Your task to perform on an android device: Search for pizza restaurants on Maps Image 0: 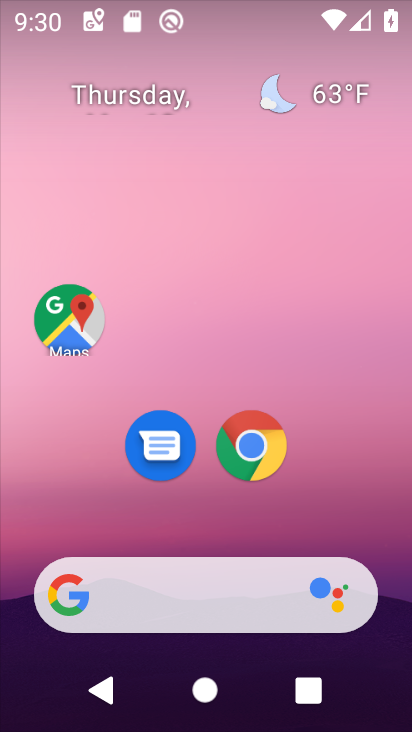
Step 0: drag from (212, 473) to (215, 157)
Your task to perform on an android device: Search for pizza restaurants on Maps Image 1: 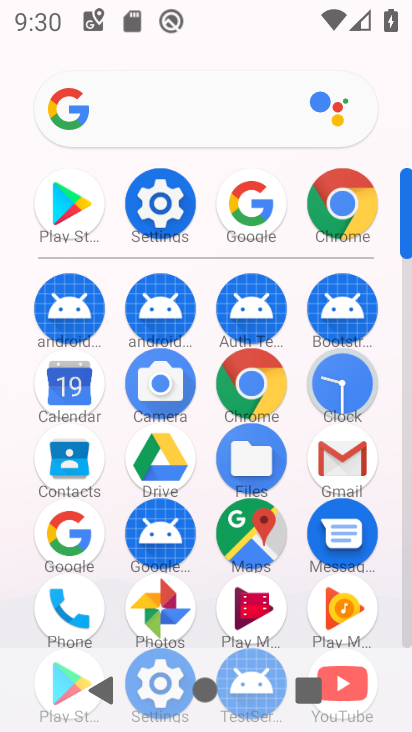
Step 1: click (266, 535)
Your task to perform on an android device: Search for pizza restaurants on Maps Image 2: 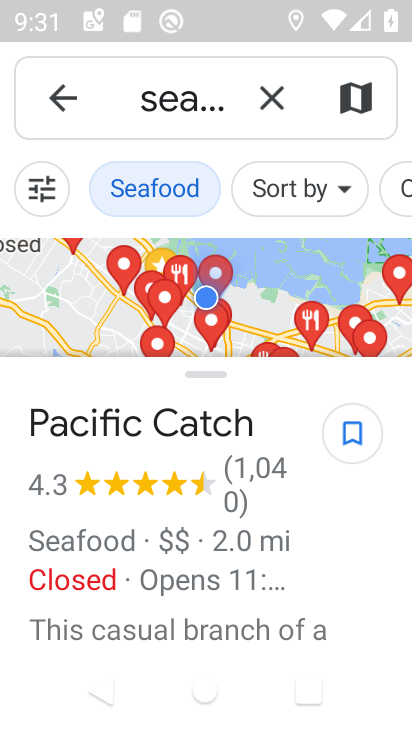
Step 2: click (255, 101)
Your task to perform on an android device: Search for pizza restaurants on Maps Image 3: 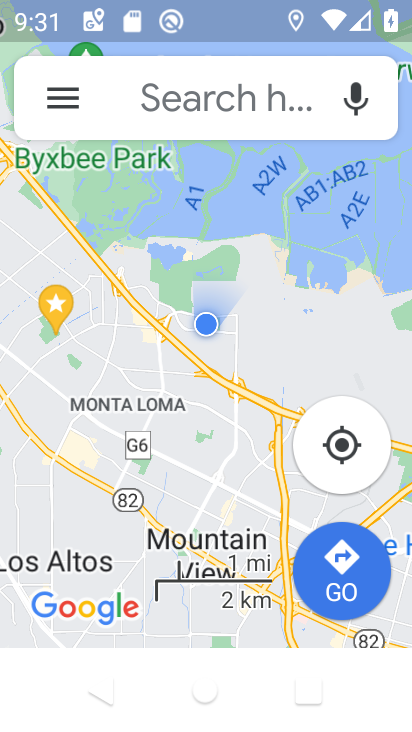
Step 3: click (233, 108)
Your task to perform on an android device: Search for pizza restaurants on Maps Image 4: 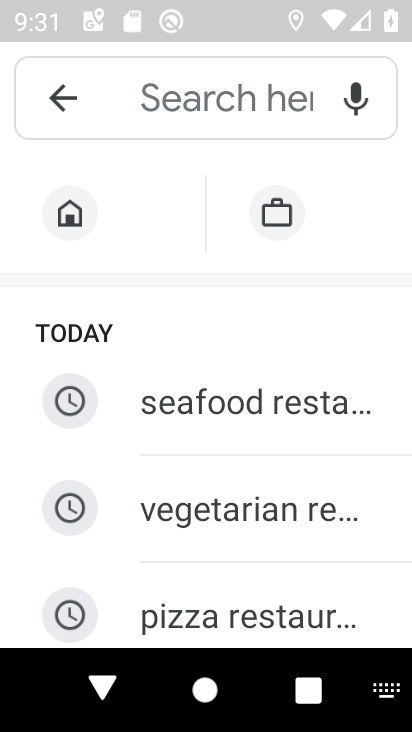
Step 4: click (240, 621)
Your task to perform on an android device: Search for pizza restaurants on Maps Image 5: 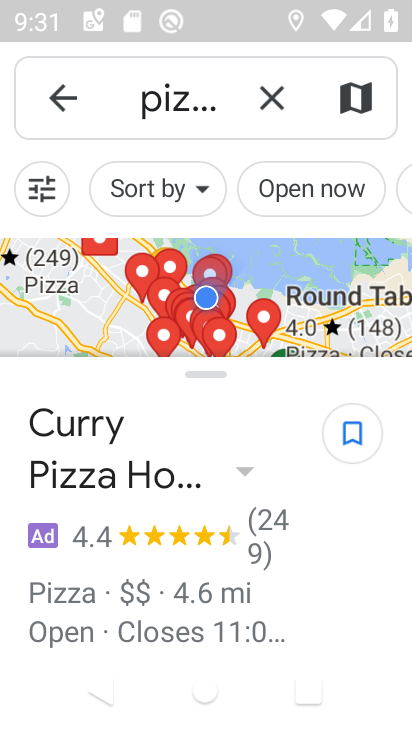
Step 5: task complete